Your task to perform on an android device: Open the calendar and show me this week's events? Image 0: 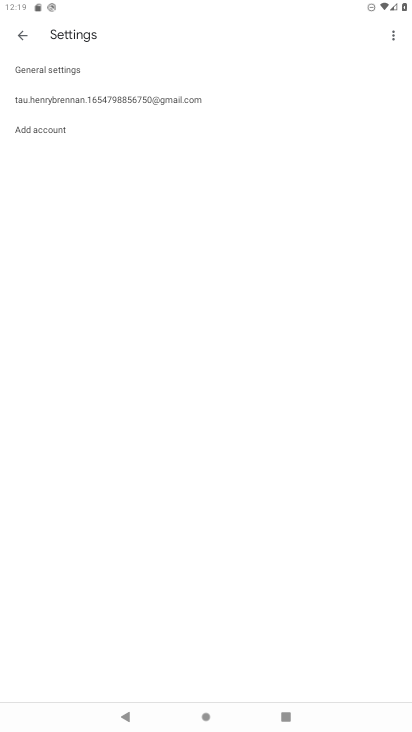
Step 0: click (6, 398)
Your task to perform on an android device: Open the calendar and show me this week's events? Image 1: 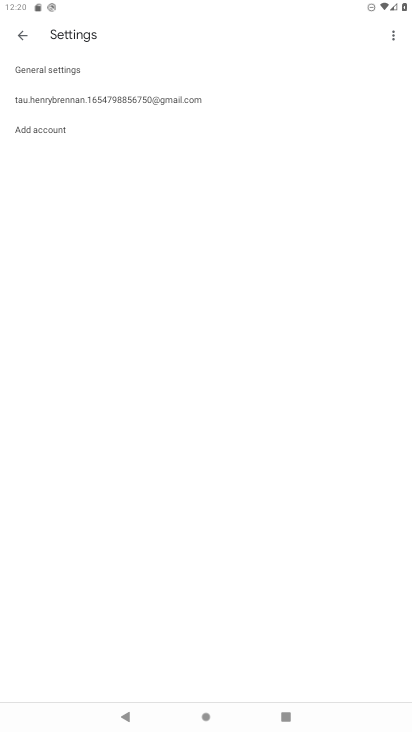
Step 1: press home button
Your task to perform on an android device: Open the calendar and show me this week's events? Image 2: 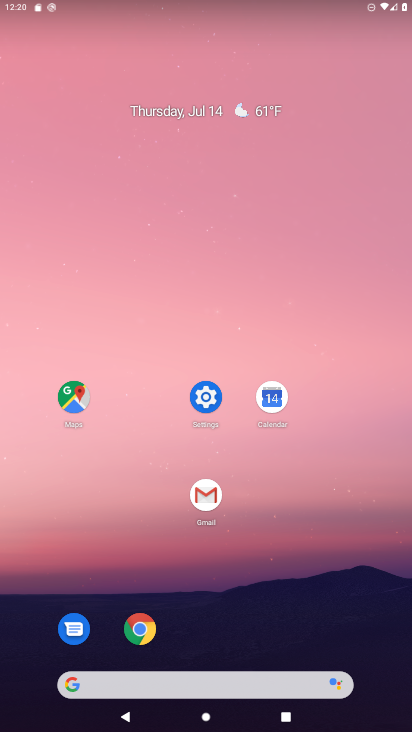
Step 2: drag from (403, 719) to (396, 165)
Your task to perform on an android device: Open the calendar and show me this week's events? Image 3: 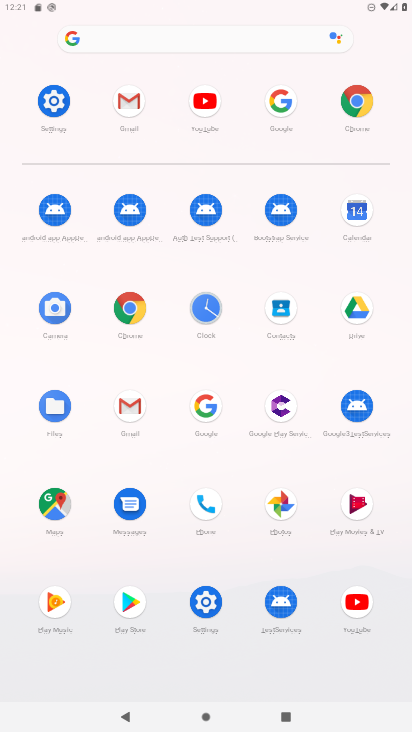
Step 3: click (357, 216)
Your task to perform on an android device: Open the calendar and show me this week's events? Image 4: 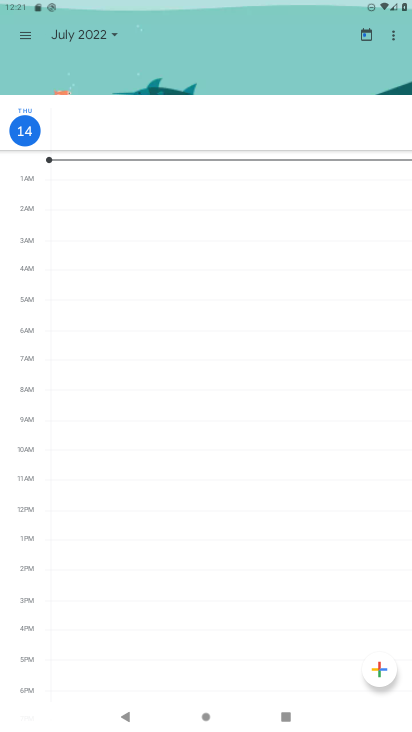
Step 4: click (29, 35)
Your task to perform on an android device: Open the calendar and show me this week's events? Image 5: 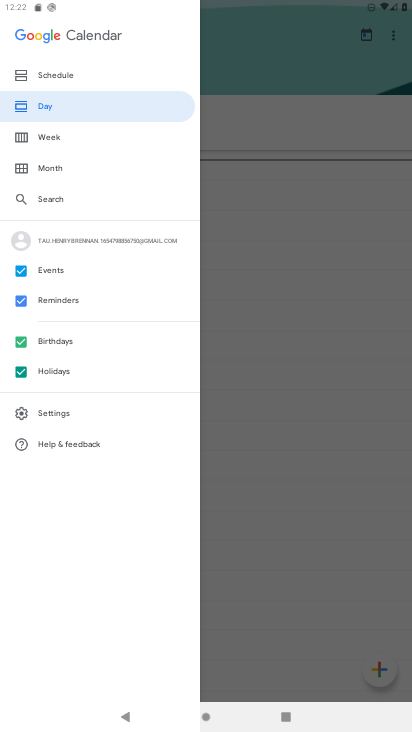
Step 5: click (44, 136)
Your task to perform on an android device: Open the calendar and show me this week's events? Image 6: 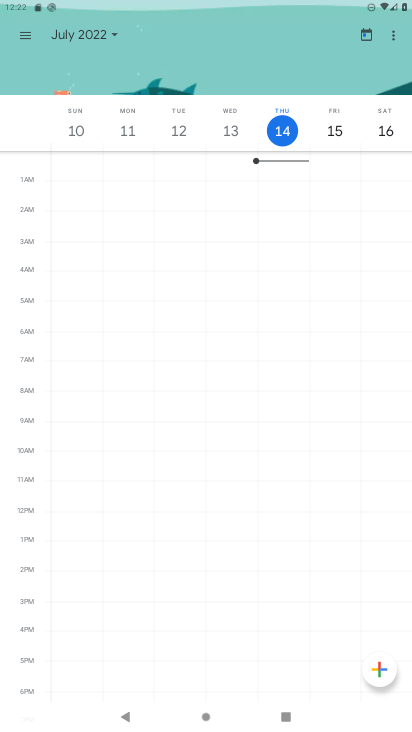
Step 6: task complete